Your task to perform on an android device: Turn on the flashlight Image 0: 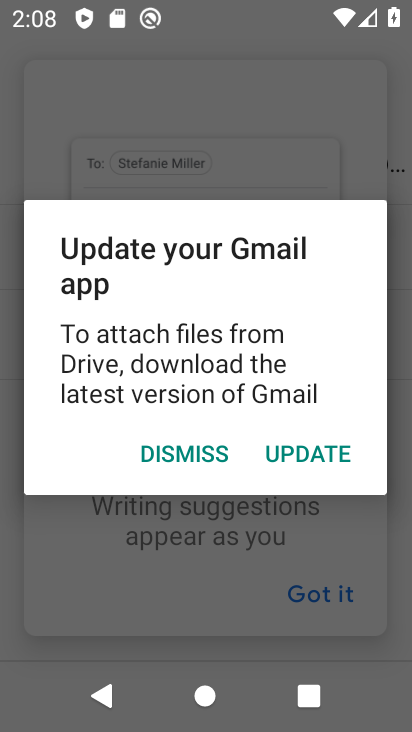
Step 0: press home button
Your task to perform on an android device: Turn on the flashlight Image 1: 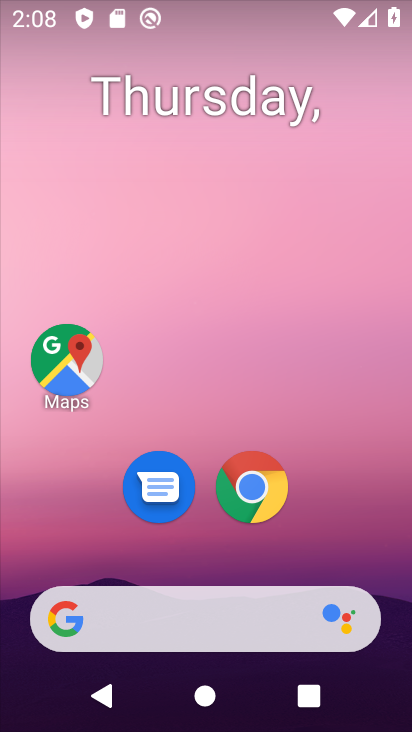
Step 1: drag from (322, 532) to (265, 239)
Your task to perform on an android device: Turn on the flashlight Image 2: 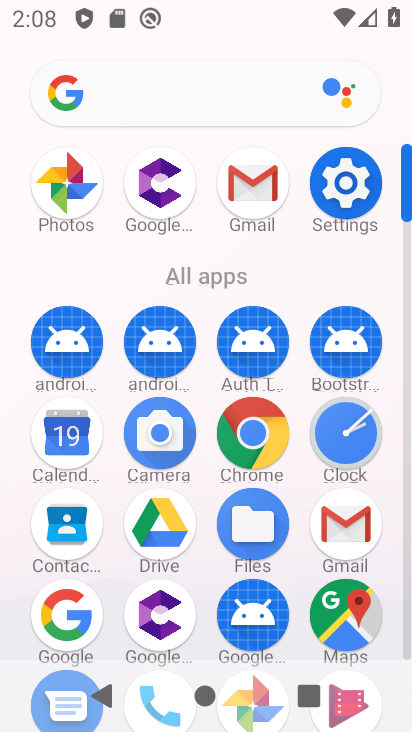
Step 2: click (360, 198)
Your task to perform on an android device: Turn on the flashlight Image 3: 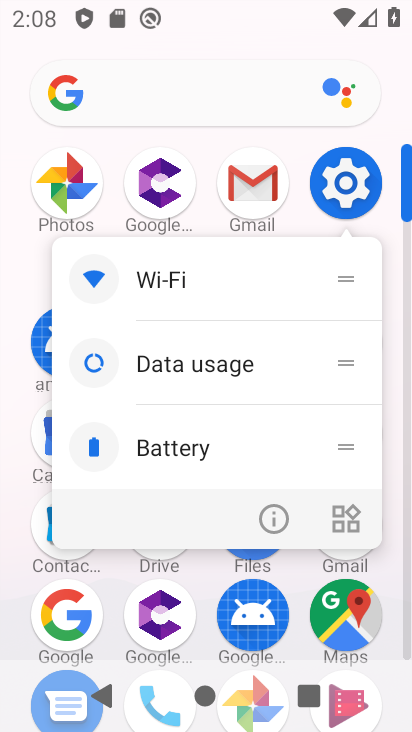
Step 3: click (341, 180)
Your task to perform on an android device: Turn on the flashlight Image 4: 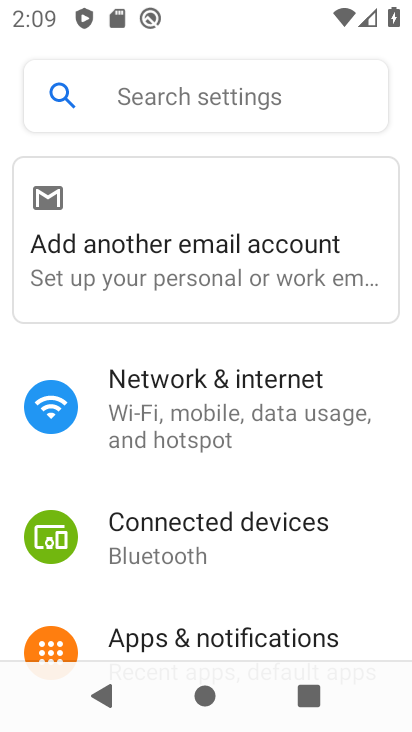
Step 4: task complete